Your task to perform on an android device: Open Google Maps and go to "Timeline" Image 0: 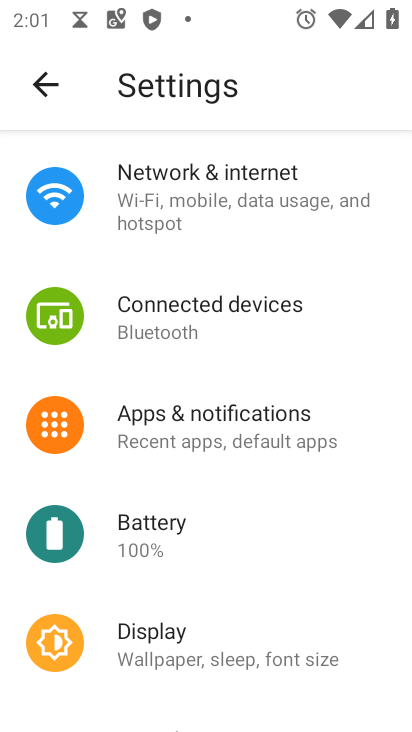
Step 0: press home button
Your task to perform on an android device: Open Google Maps and go to "Timeline" Image 1: 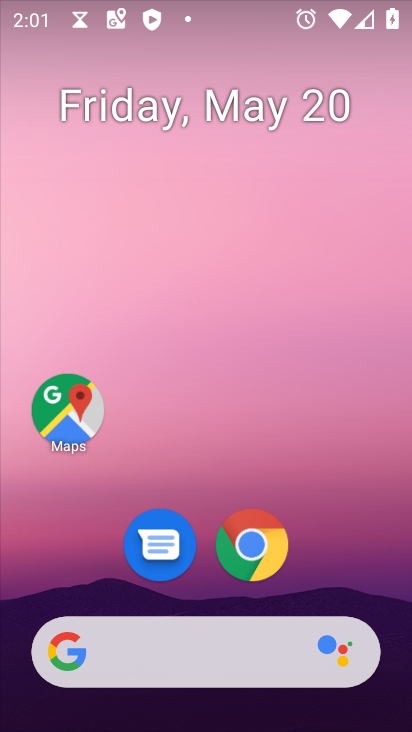
Step 1: click (66, 423)
Your task to perform on an android device: Open Google Maps and go to "Timeline" Image 2: 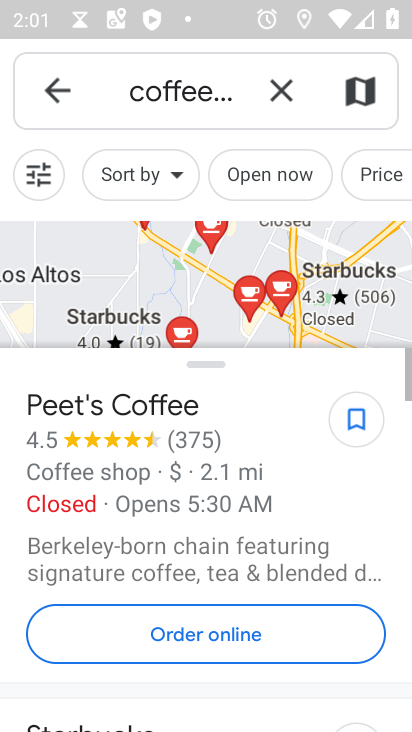
Step 2: click (70, 93)
Your task to perform on an android device: Open Google Maps and go to "Timeline" Image 3: 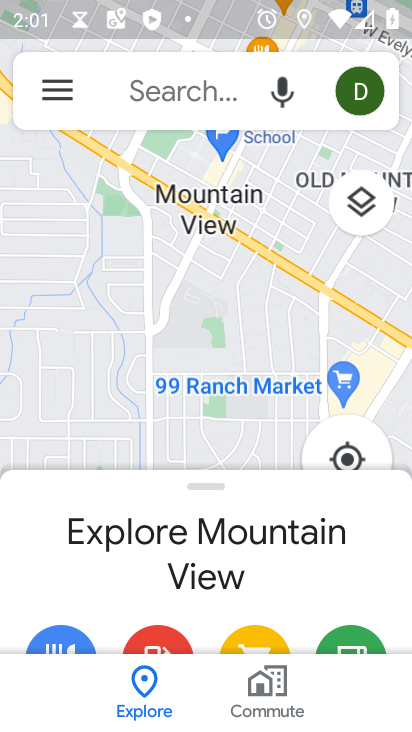
Step 3: click (66, 92)
Your task to perform on an android device: Open Google Maps and go to "Timeline" Image 4: 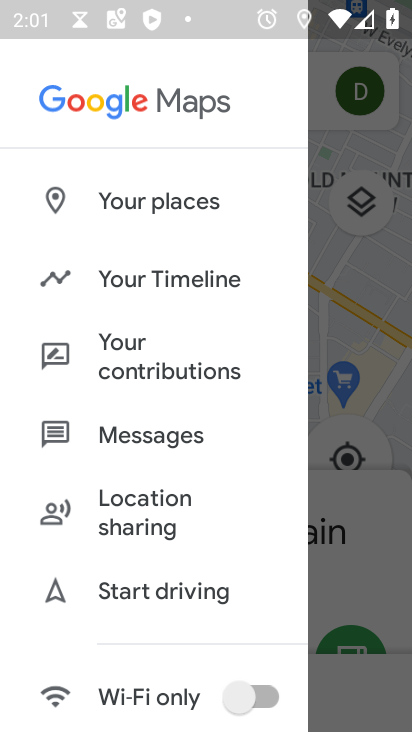
Step 4: click (127, 265)
Your task to perform on an android device: Open Google Maps and go to "Timeline" Image 5: 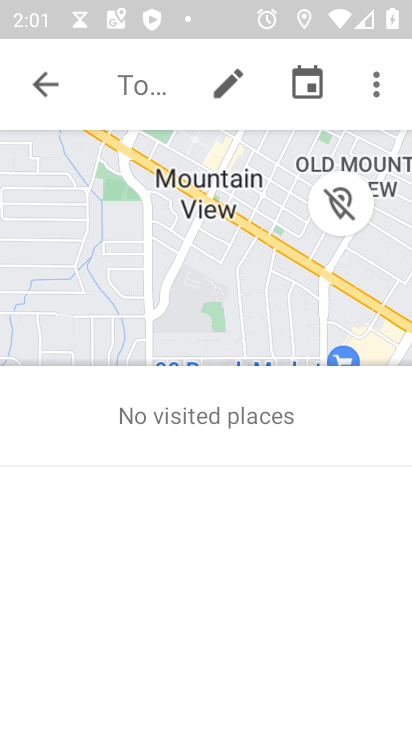
Step 5: click (145, 279)
Your task to perform on an android device: Open Google Maps and go to "Timeline" Image 6: 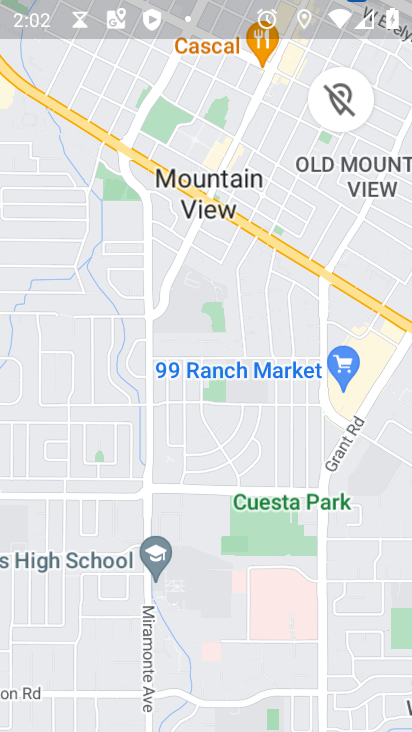
Step 6: task complete